Your task to perform on an android device: open chrome and create a bookmark for the current page Image 0: 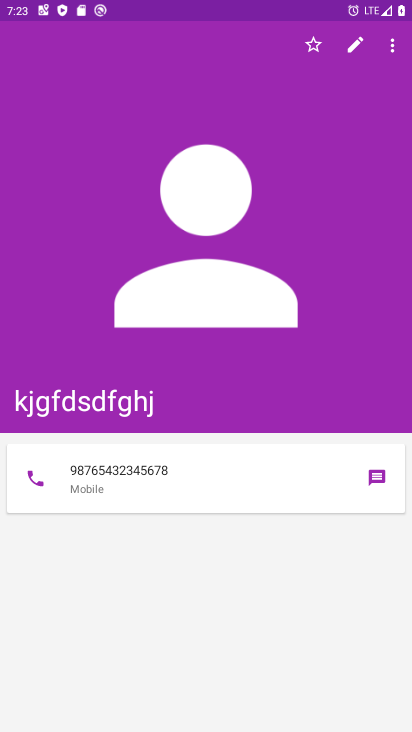
Step 0: press home button
Your task to perform on an android device: open chrome and create a bookmark for the current page Image 1: 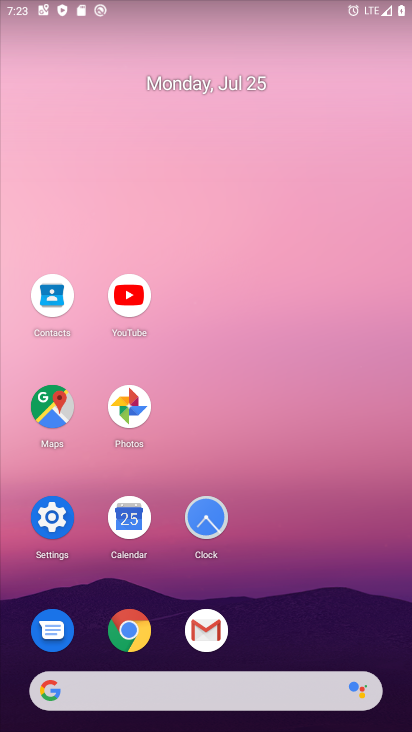
Step 1: click (130, 632)
Your task to perform on an android device: open chrome and create a bookmark for the current page Image 2: 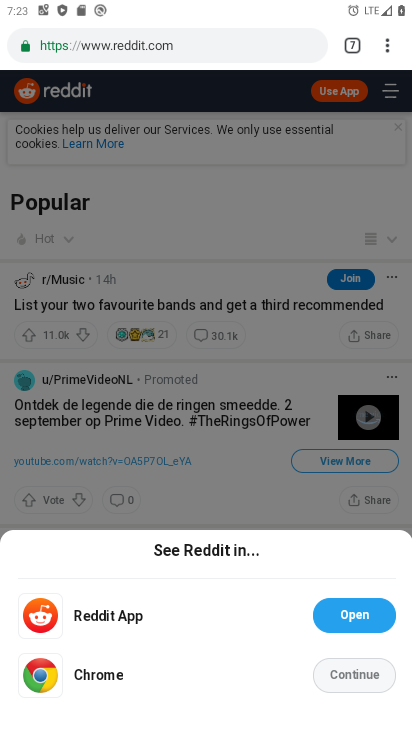
Step 2: click (388, 44)
Your task to perform on an android device: open chrome and create a bookmark for the current page Image 3: 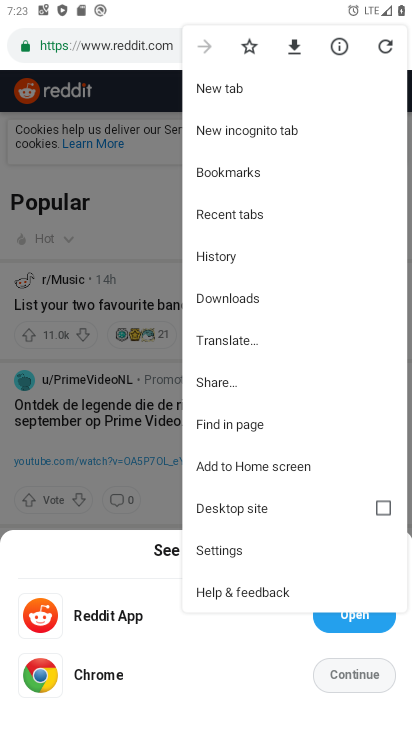
Step 3: click (251, 42)
Your task to perform on an android device: open chrome and create a bookmark for the current page Image 4: 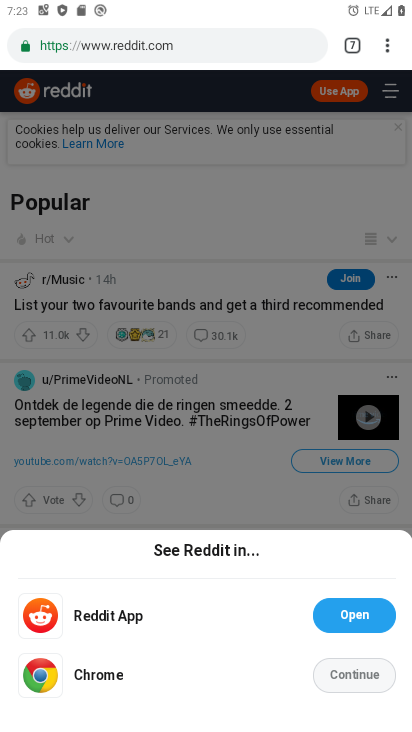
Step 4: task complete